Your task to perform on an android device: set the stopwatch Image 0: 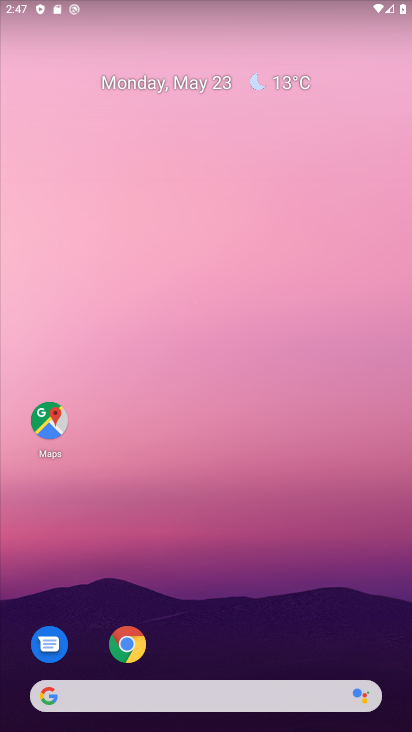
Step 0: drag from (194, 680) to (278, 20)
Your task to perform on an android device: set the stopwatch Image 1: 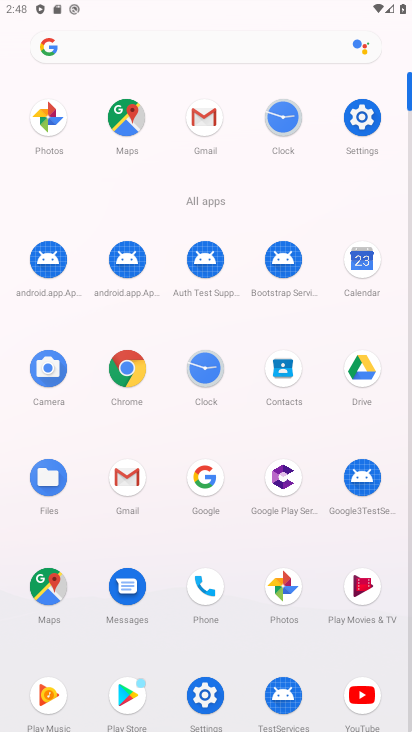
Step 1: click (205, 374)
Your task to perform on an android device: set the stopwatch Image 2: 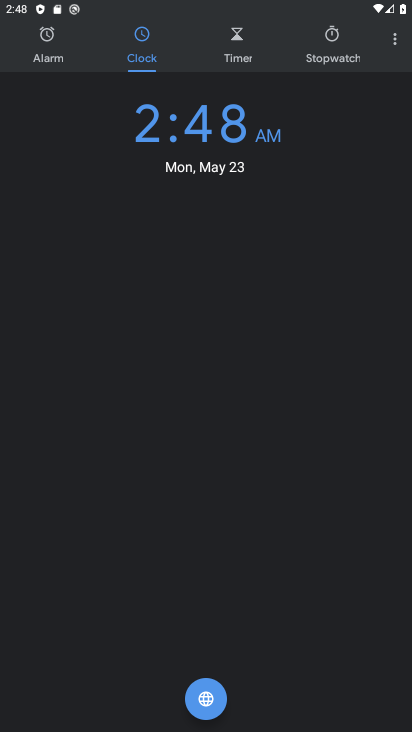
Step 2: click (329, 43)
Your task to perform on an android device: set the stopwatch Image 3: 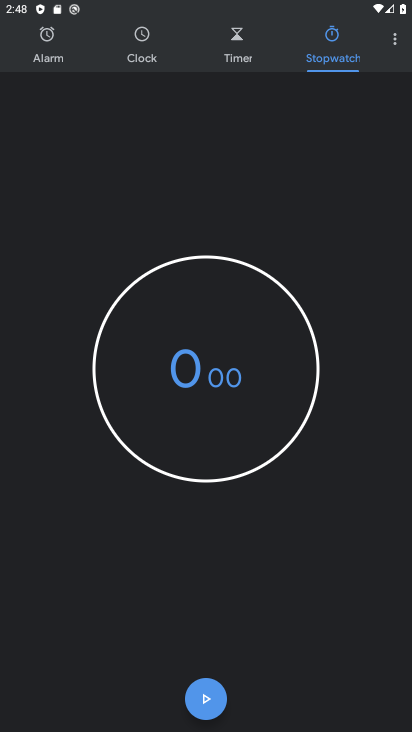
Step 3: click (215, 701)
Your task to perform on an android device: set the stopwatch Image 4: 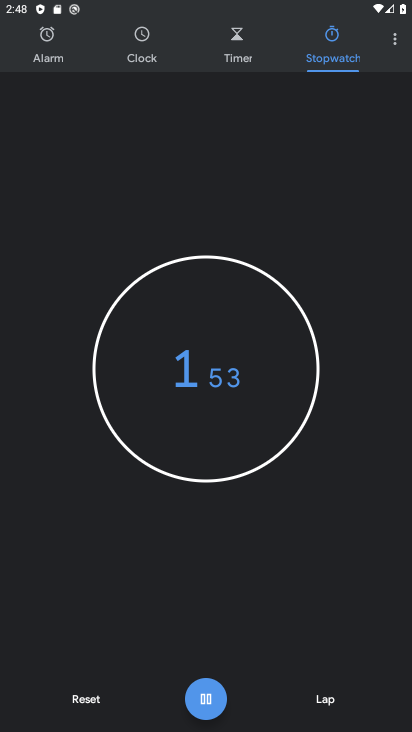
Step 4: click (210, 696)
Your task to perform on an android device: set the stopwatch Image 5: 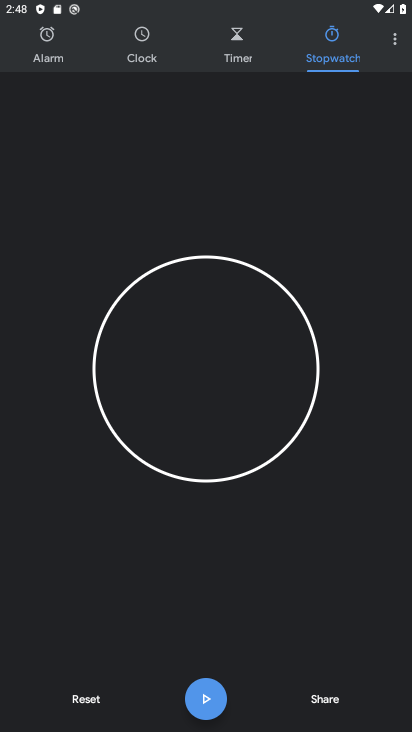
Step 5: task complete